Your task to perform on an android device: Set the phone to "Do not disturb". Image 0: 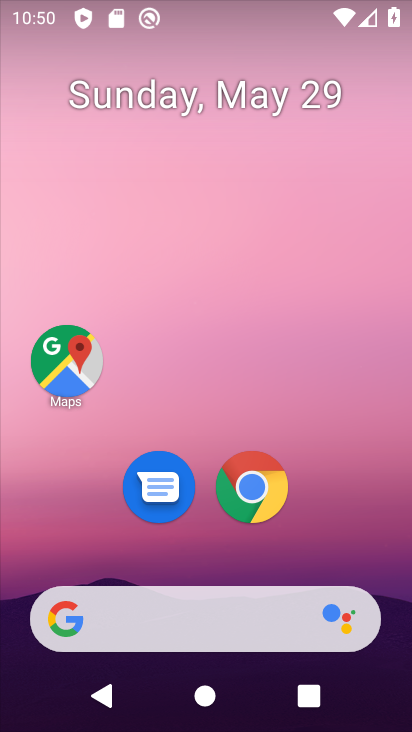
Step 0: drag from (236, 15) to (194, 524)
Your task to perform on an android device: Set the phone to "Do not disturb". Image 1: 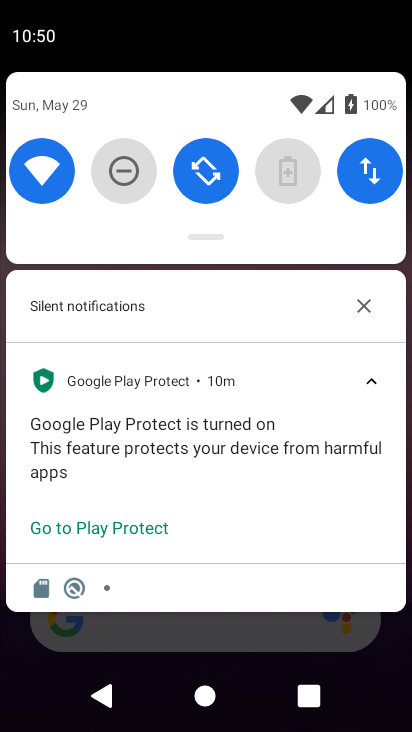
Step 1: click (122, 173)
Your task to perform on an android device: Set the phone to "Do not disturb". Image 2: 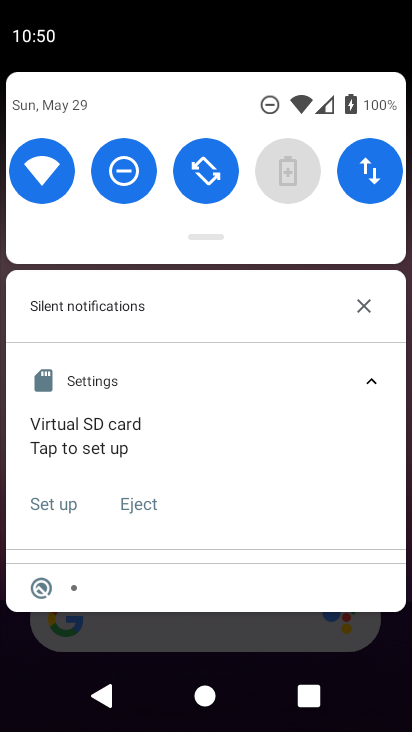
Step 2: task complete